Your task to perform on an android device: Open internet settings Image 0: 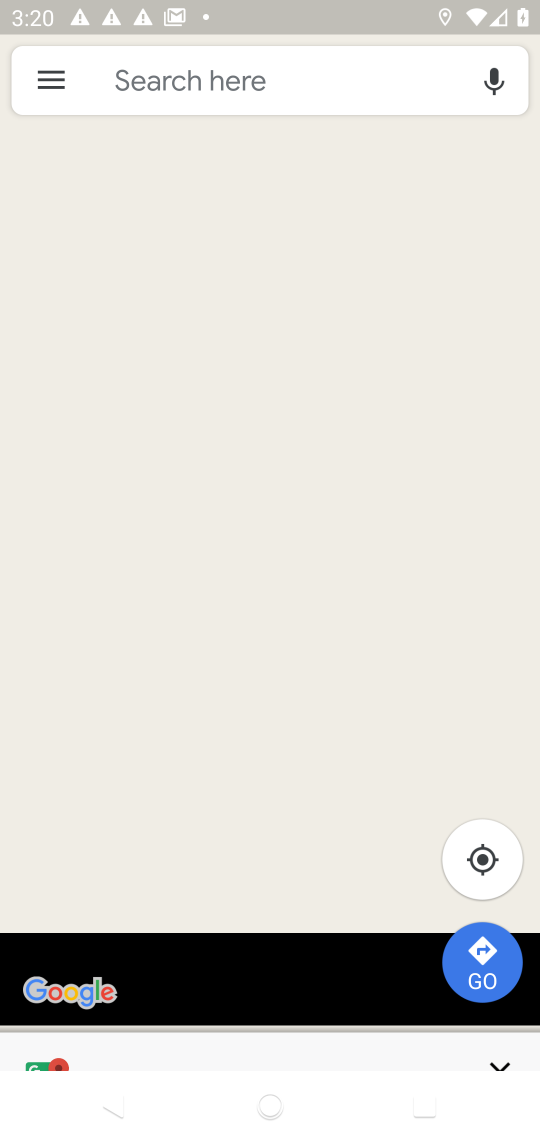
Step 0: press home button
Your task to perform on an android device: Open internet settings Image 1: 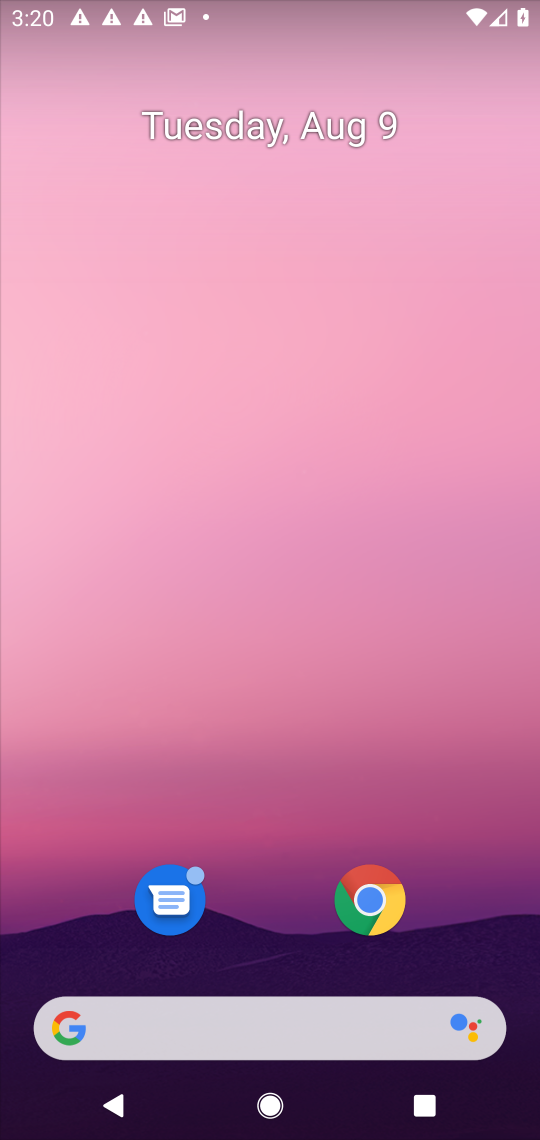
Step 1: drag from (295, 840) to (224, 271)
Your task to perform on an android device: Open internet settings Image 2: 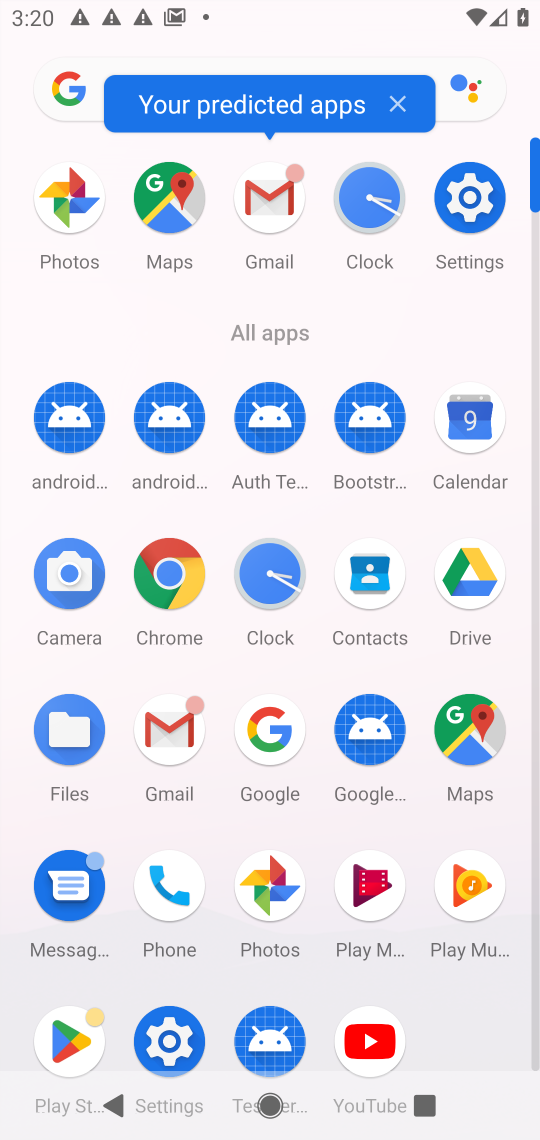
Step 2: click (480, 218)
Your task to perform on an android device: Open internet settings Image 3: 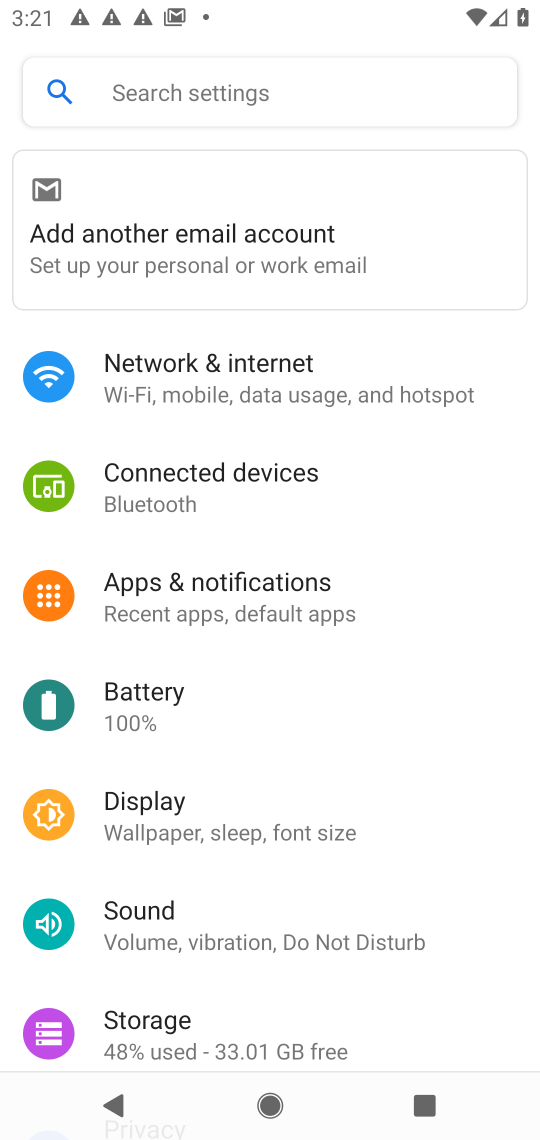
Step 3: click (275, 371)
Your task to perform on an android device: Open internet settings Image 4: 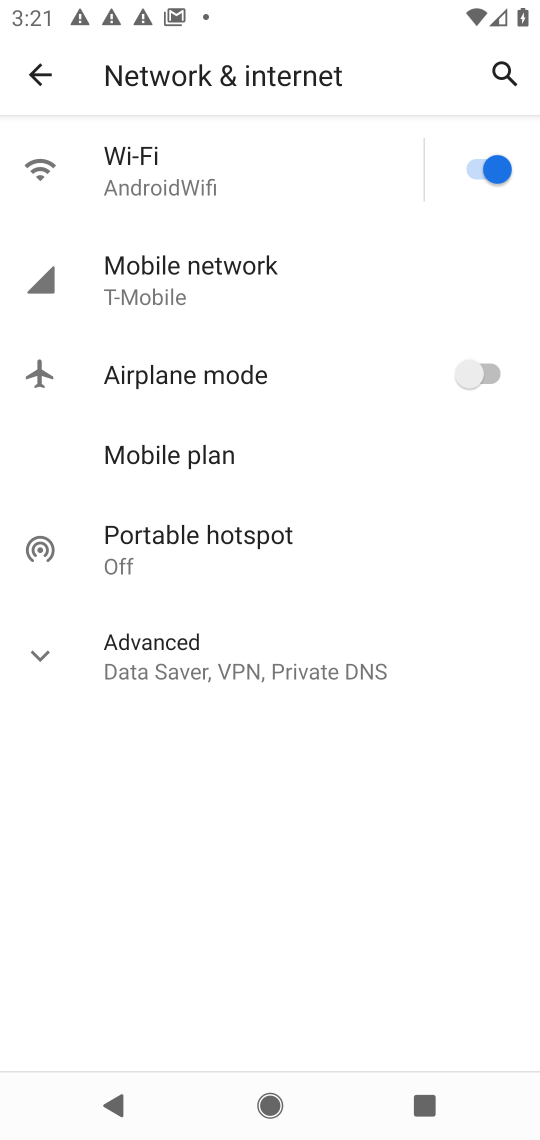
Step 4: task complete